Your task to perform on an android device: open app "Nova Launcher" (install if not already installed) and enter user name: "haggard@gmail.com" and password: "sadder" Image 0: 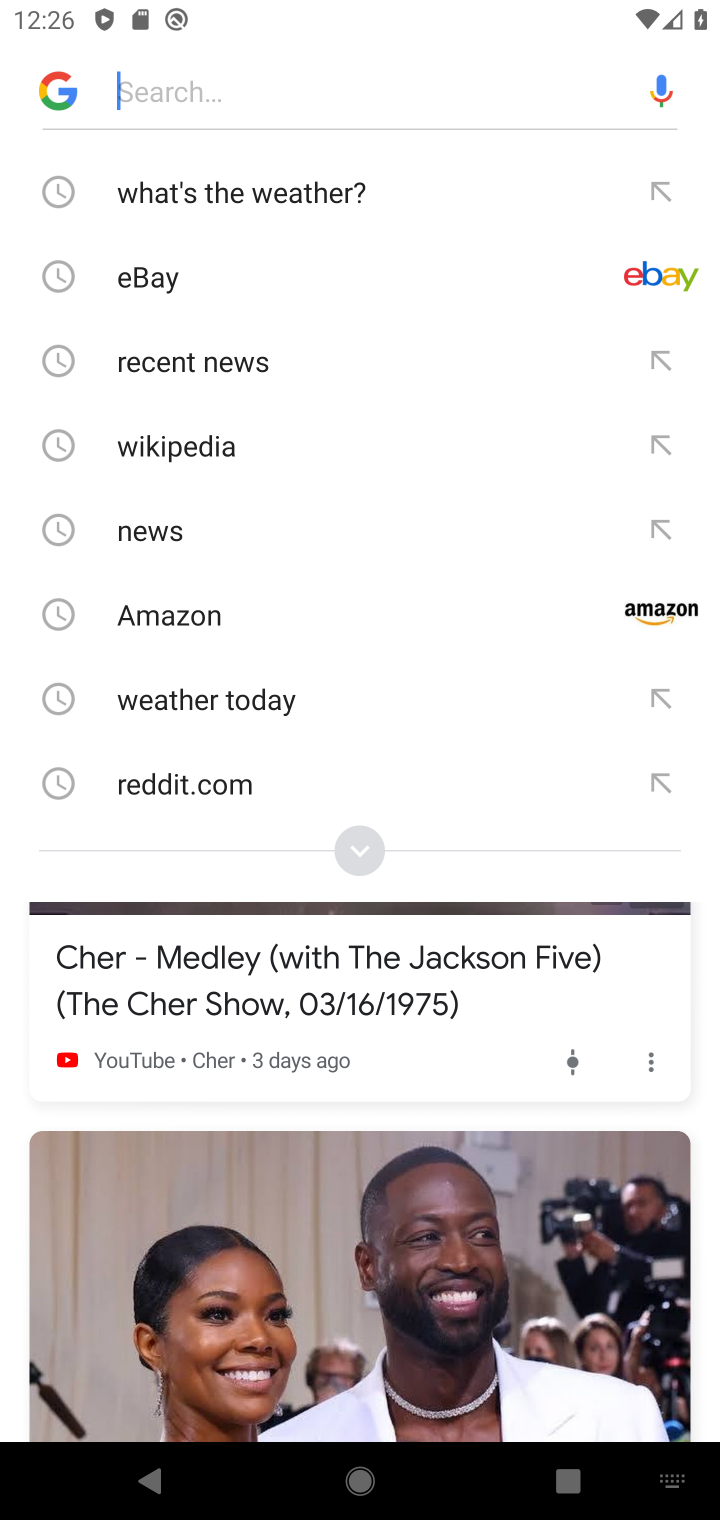
Step 0: press back button
Your task to perform on an android device: open app "Nova Launcher" (install if not already installed) and enter user name: "haggard@gmail.com" and password: "sadder" Image 1: 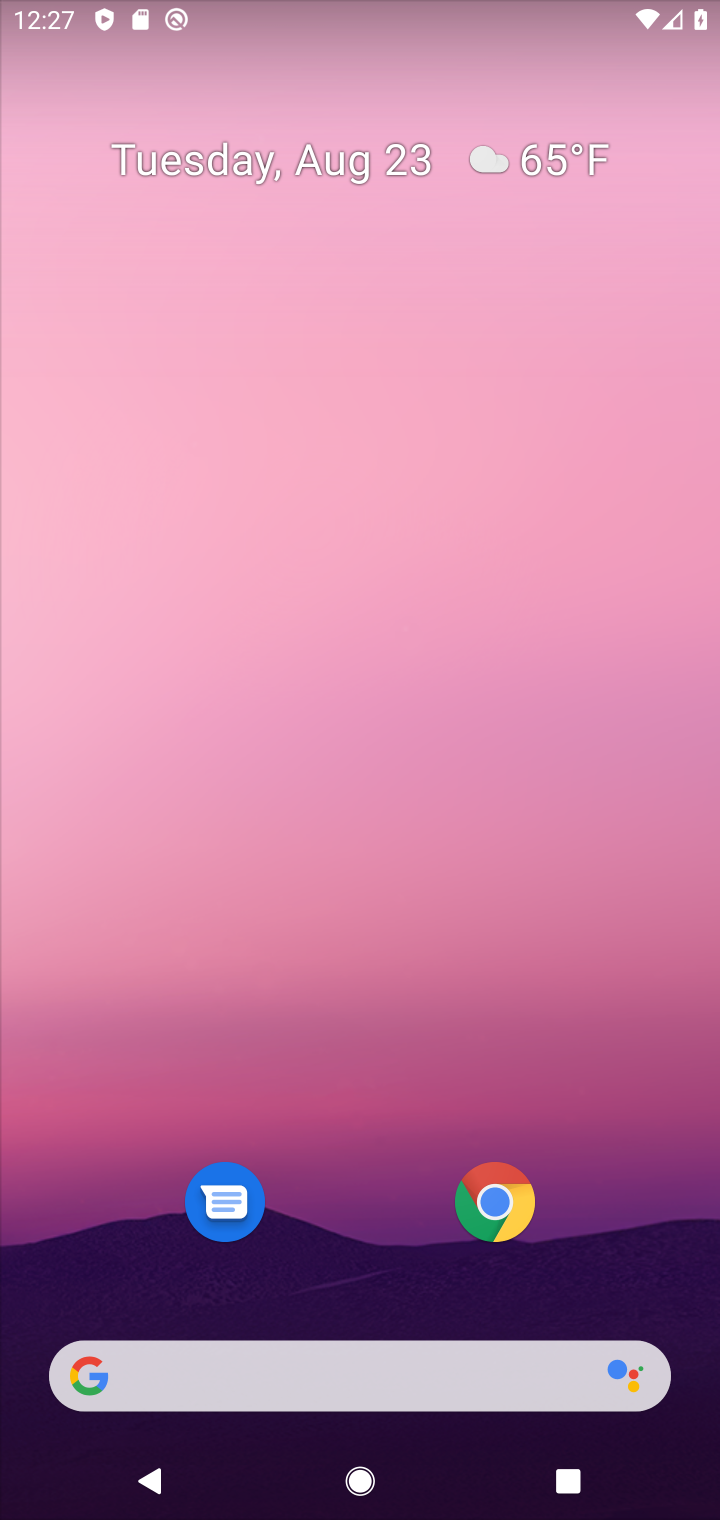
Step 1: drag from (377, 1370) to (275, 216)
Your task to perform on an android device: open app "Nova Launcher" (install if not already installed) and enter user name: "haggard@gmail.com" and password: "sadder" Image 2: 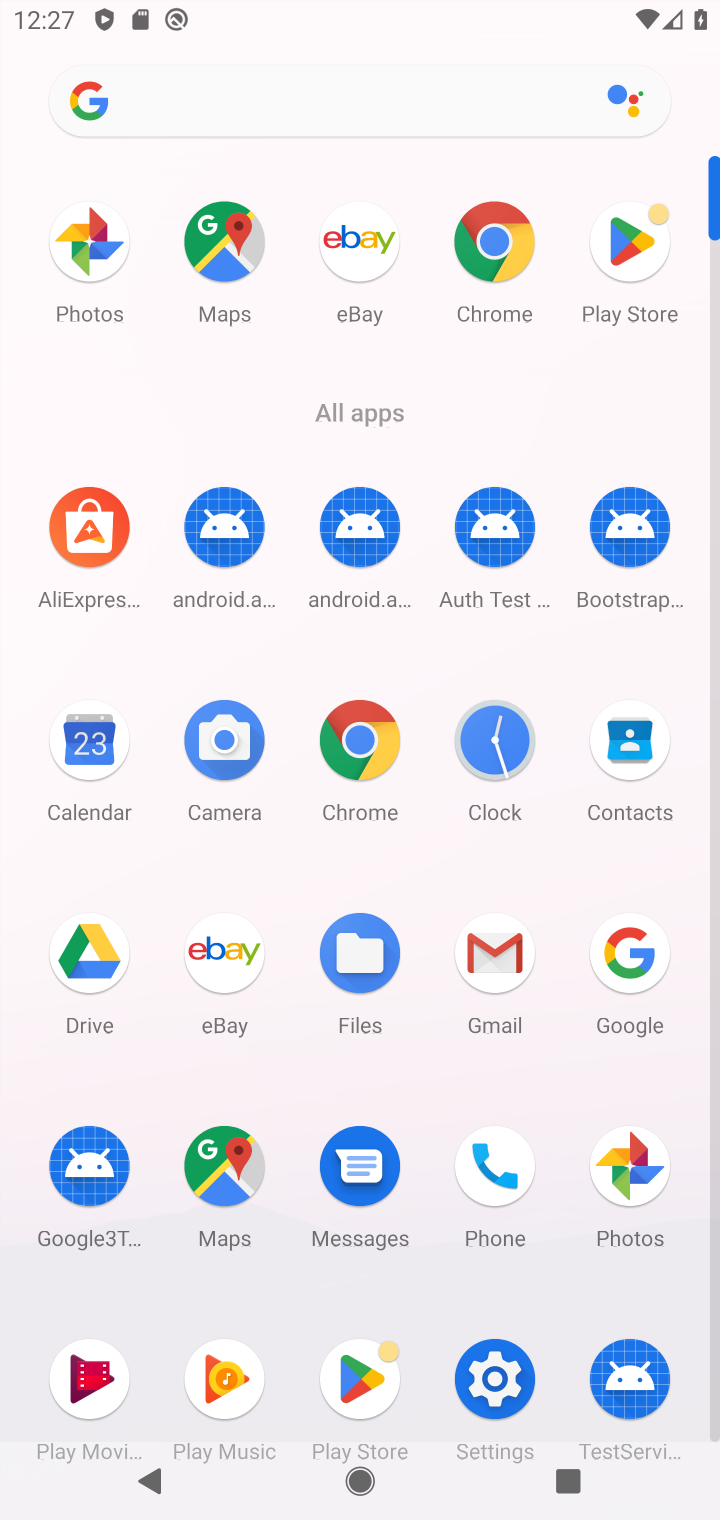
Step 2: click (631, 272)
Your task to perform on an android device: open app "Nova Launcher" (install if not already installed) and enter user name: "haggard@gmail.com" and password: "sadder" Image 3: 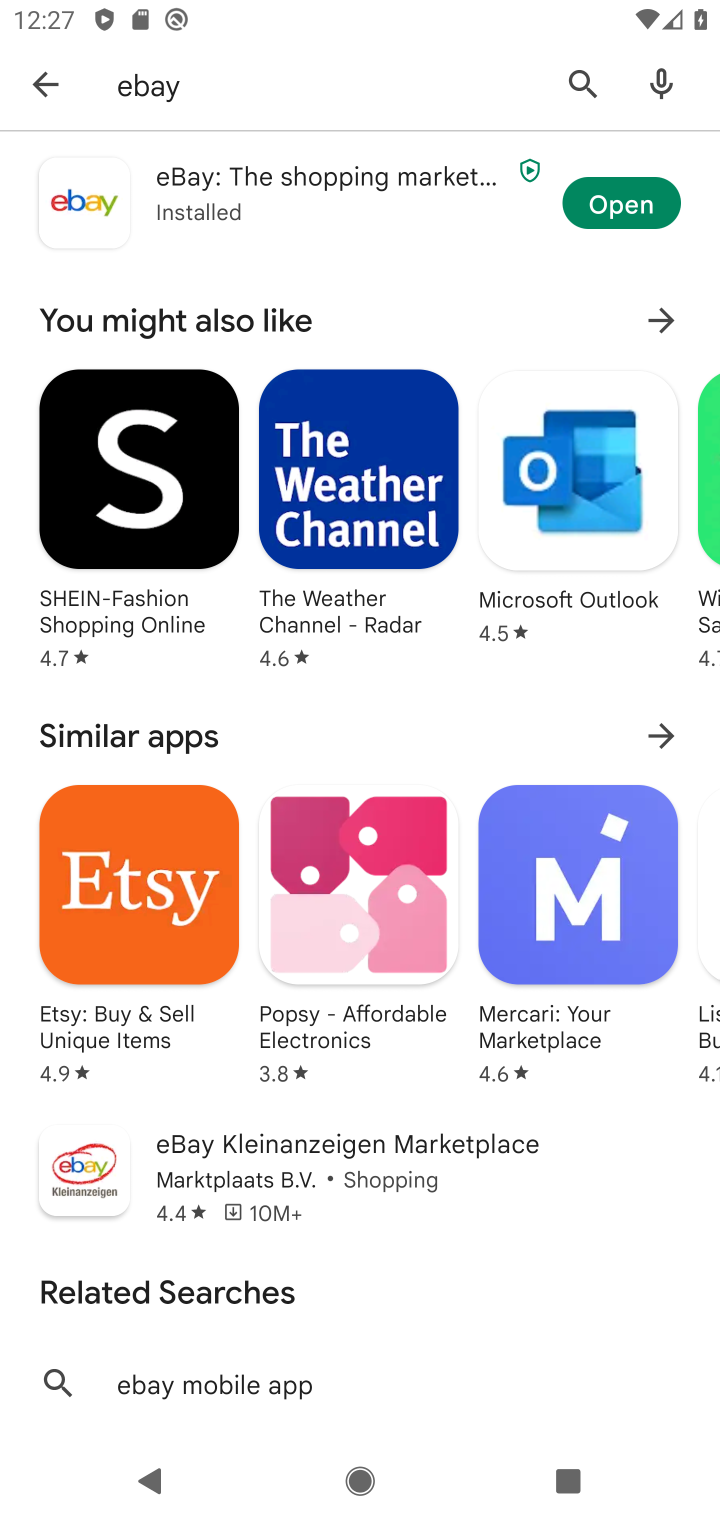
Step 3: click (585, 81)
Your task to perform on an android device: open app "Nova Launcher" (install if not already installed) and enter user name: "haggard@gmail.com" and password: "sadder" Image 4: 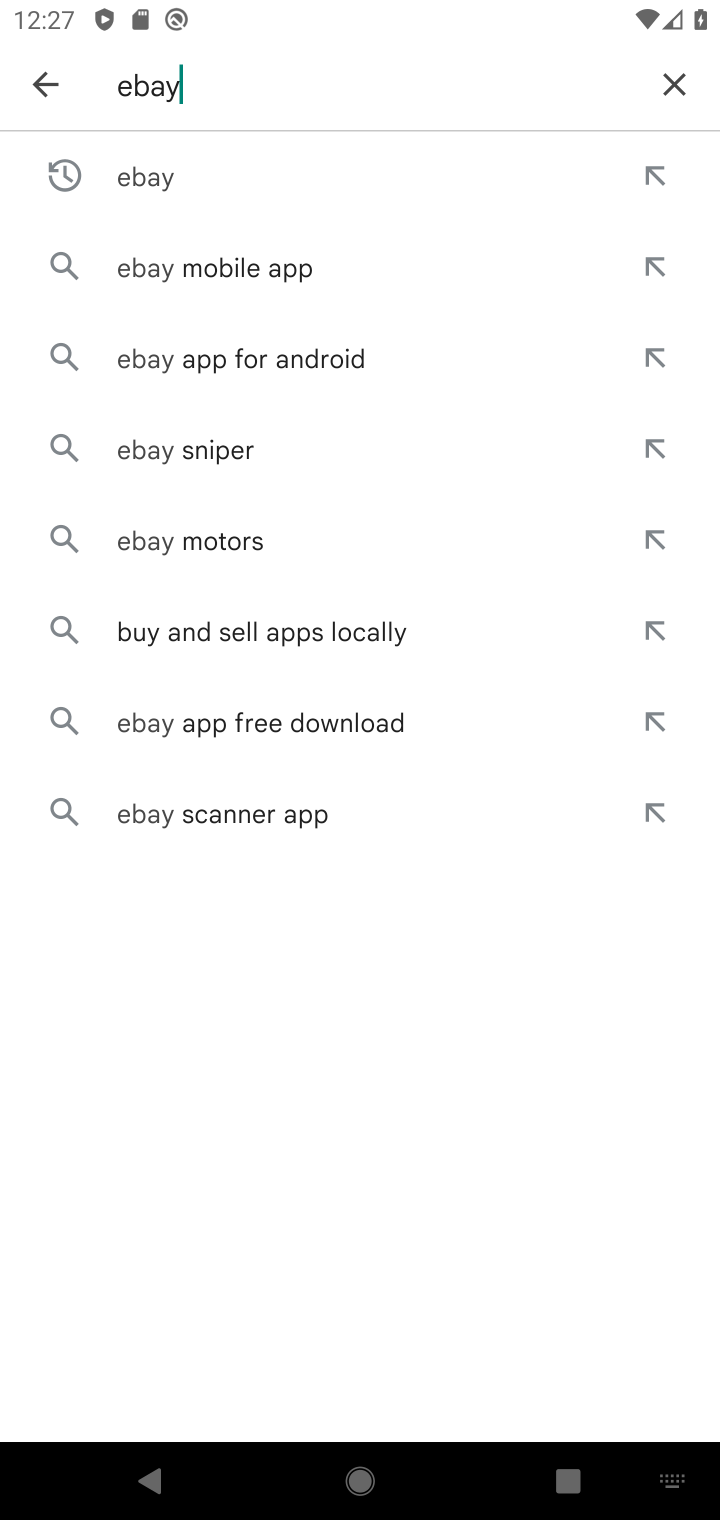
Step 4: click (678, 80)
Your task to perform on an android device: open app "Nova Launcher" (install if not already installed) and enter user name: "haggard@gmail.com" and password: "sadder" Image 5: 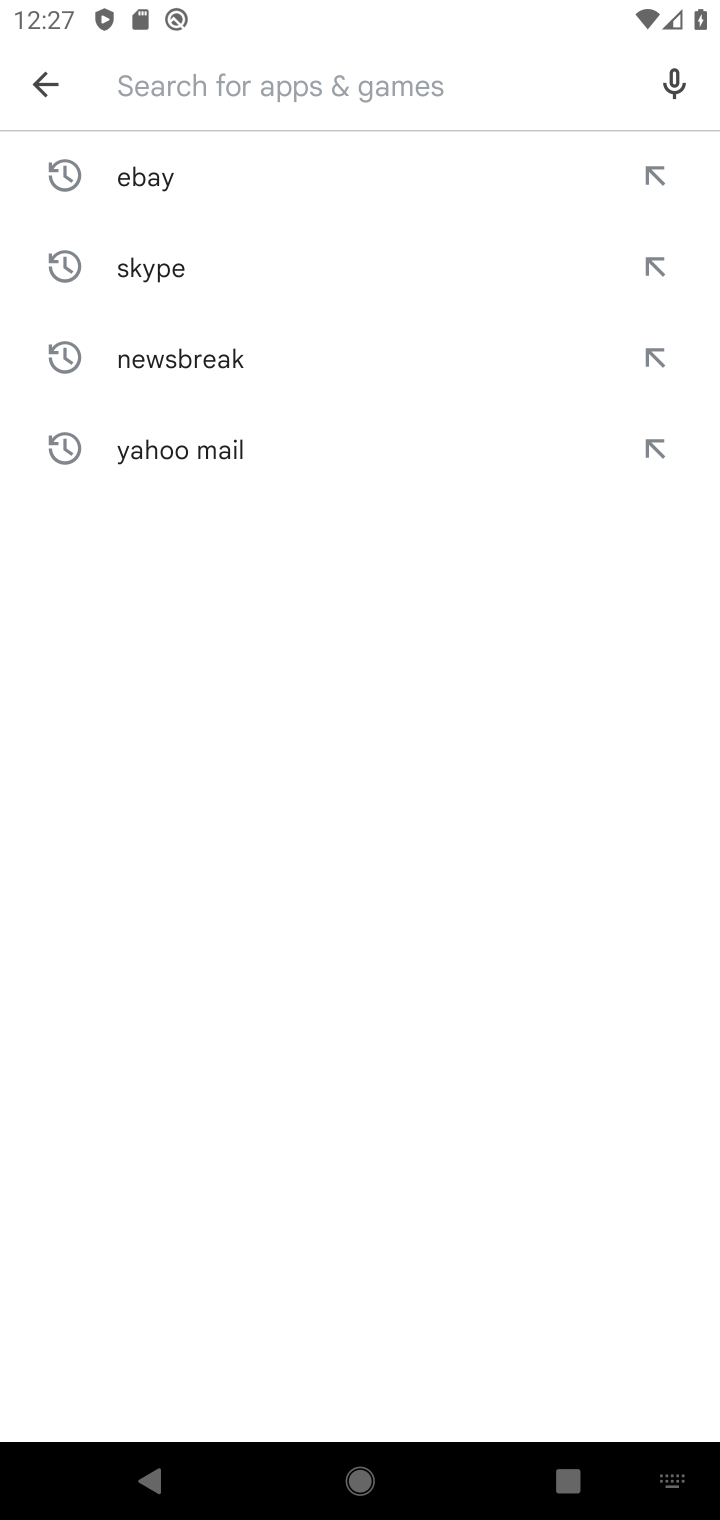
Step 5: type "nova launcher"
Your task to perform on an android device: open app "Nova Launcher" (install if not already installed) and enter user name: "haggard@gmail.com" and password: "sadder" Image 6: 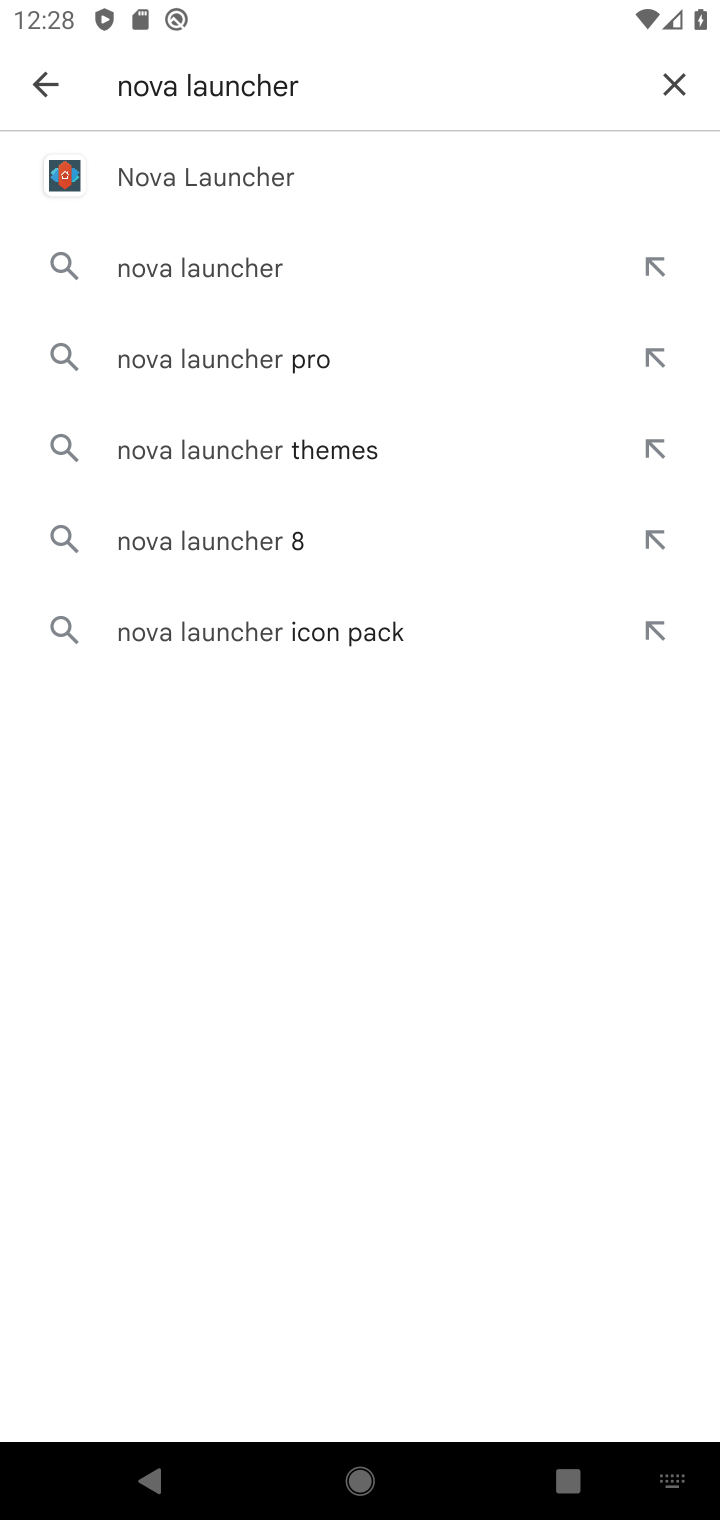
Step 6: click (191, 170)
Your task to perform on an android device: open app "Nova Launcher" (install if not already installed) and enter user name: "haggard@gmail.com" and password: "sadder" Image 7: 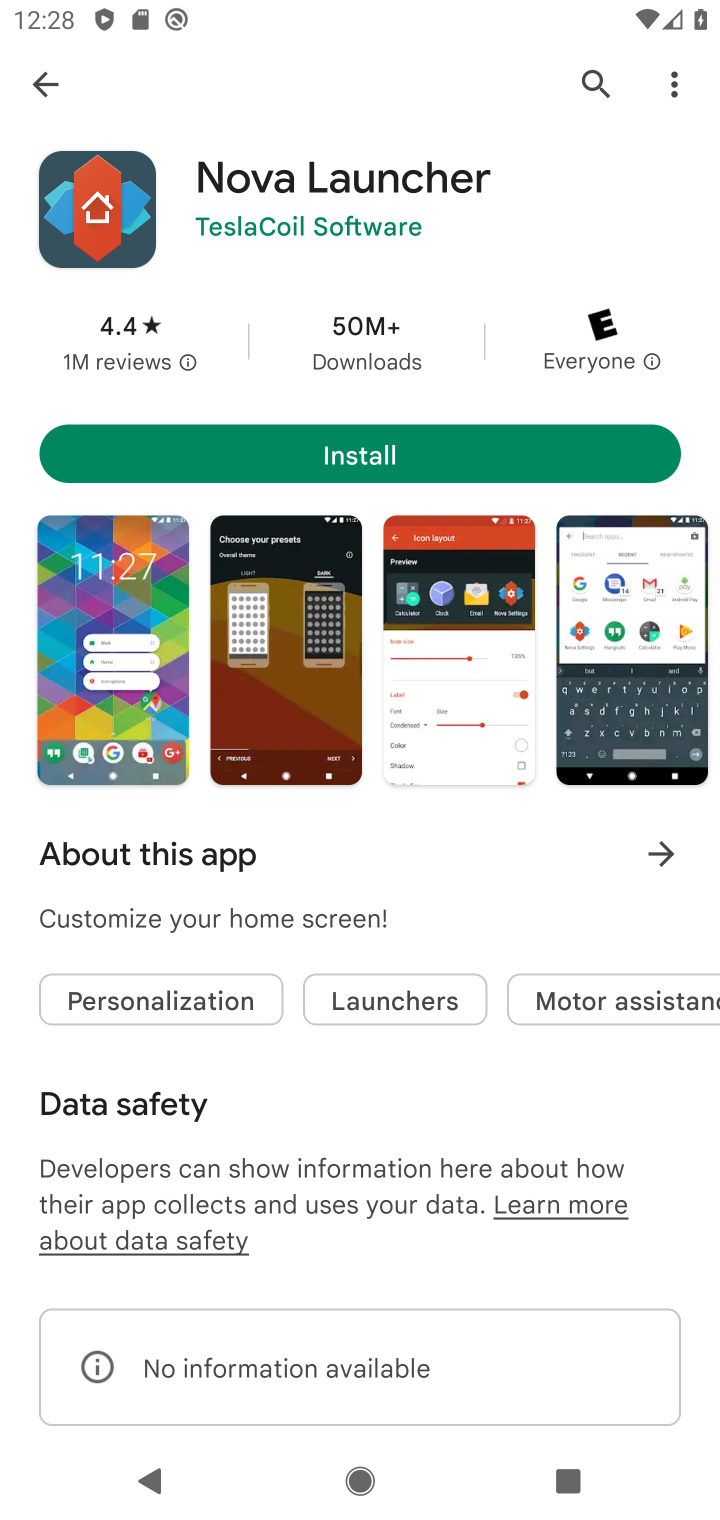
Step 7: click (434, 444)
Your task to perform on an android device: open app "Nova Launcher" (install if not already installed) and enter user name: "haggard@gmail.com" and password: "sadder" Image 8: 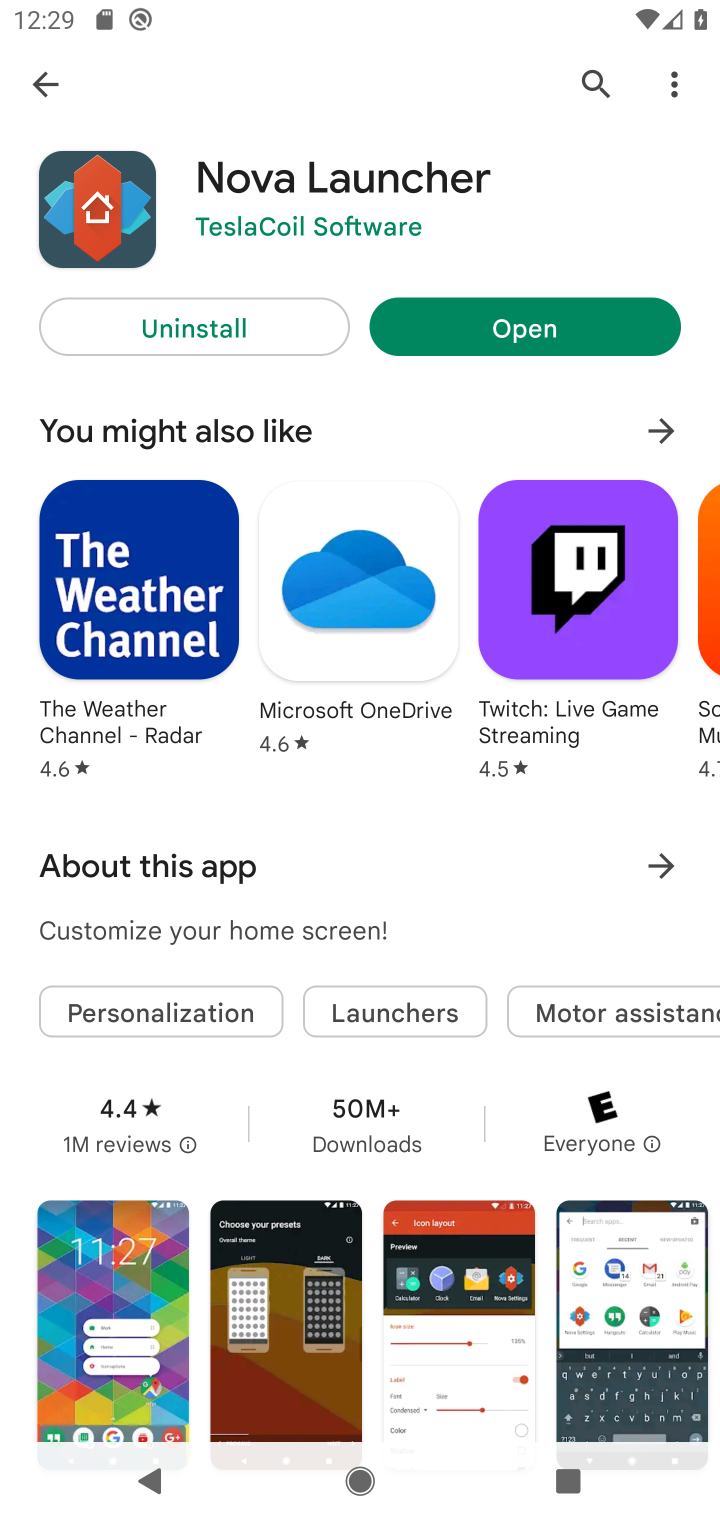
Step 8: click (555, 332)
Your task to perform on an android device: open app "Nova Launcher" (install if not already installed) and enter user name: "haggard@gmail.com" and password: "sadder" Image 9: 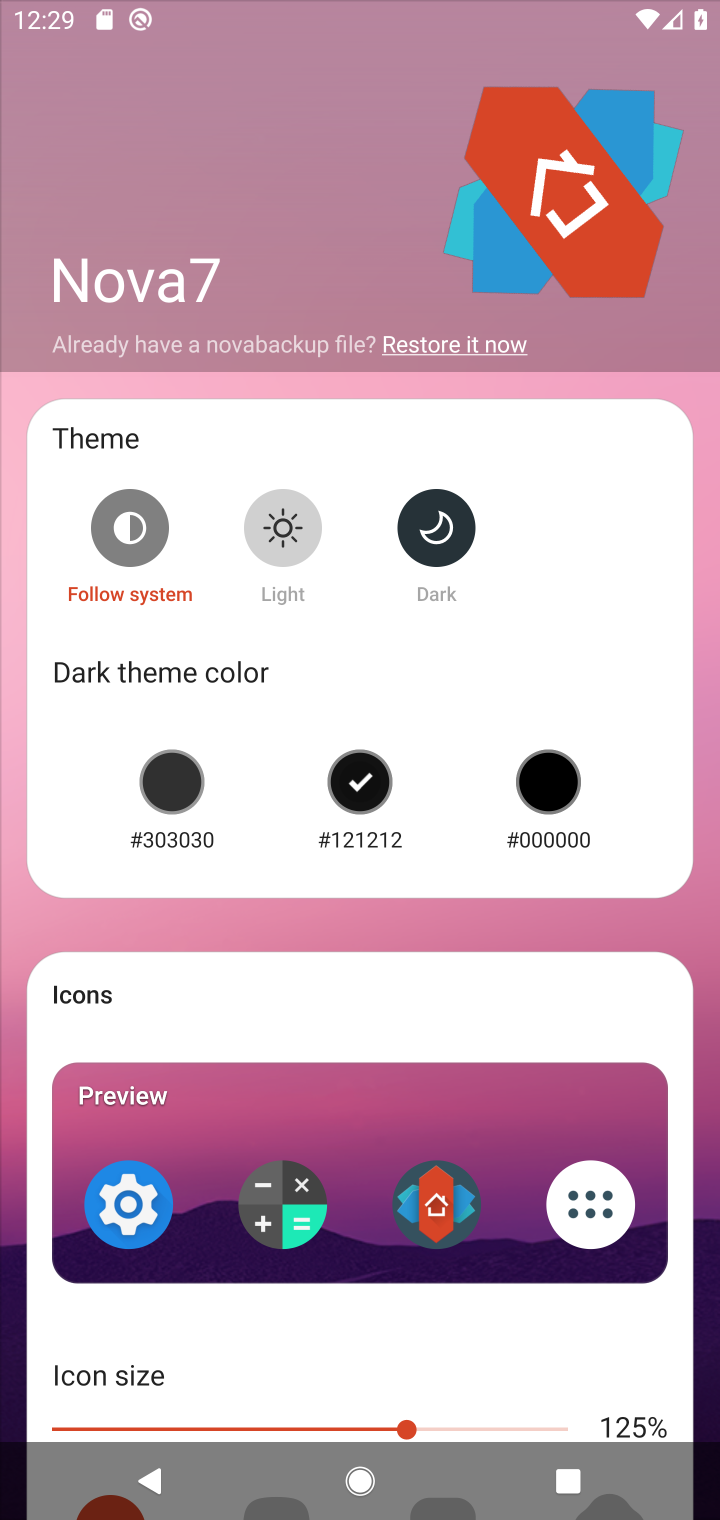
Step 9: task complete